Your task to perform on an android device: turn off picture-in-picture Image 0: 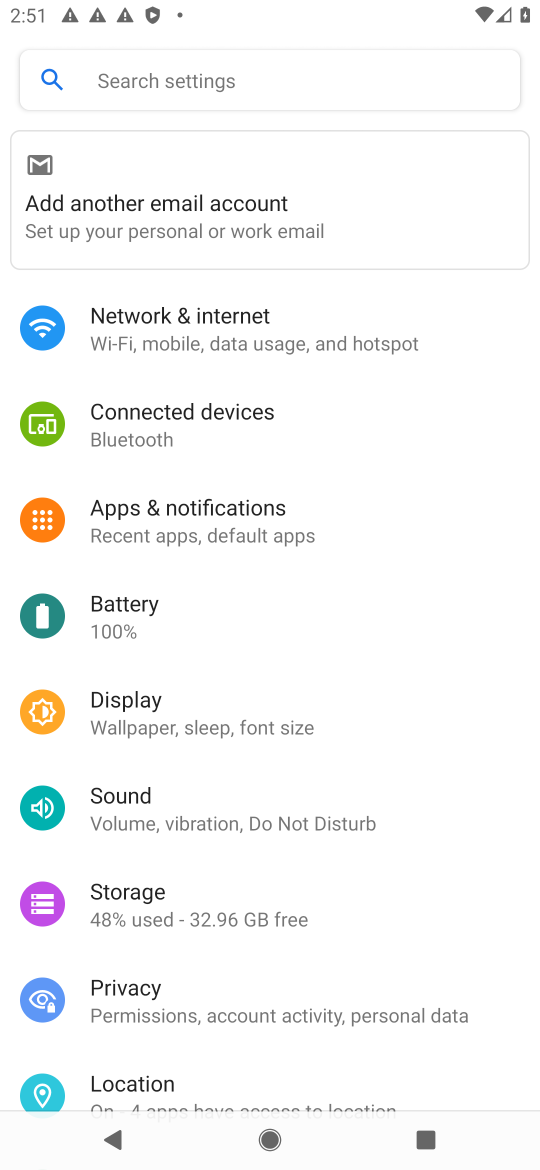
Step 0: press home button
Your task to perform on an android device: turn off picture-in-picture Image 1: 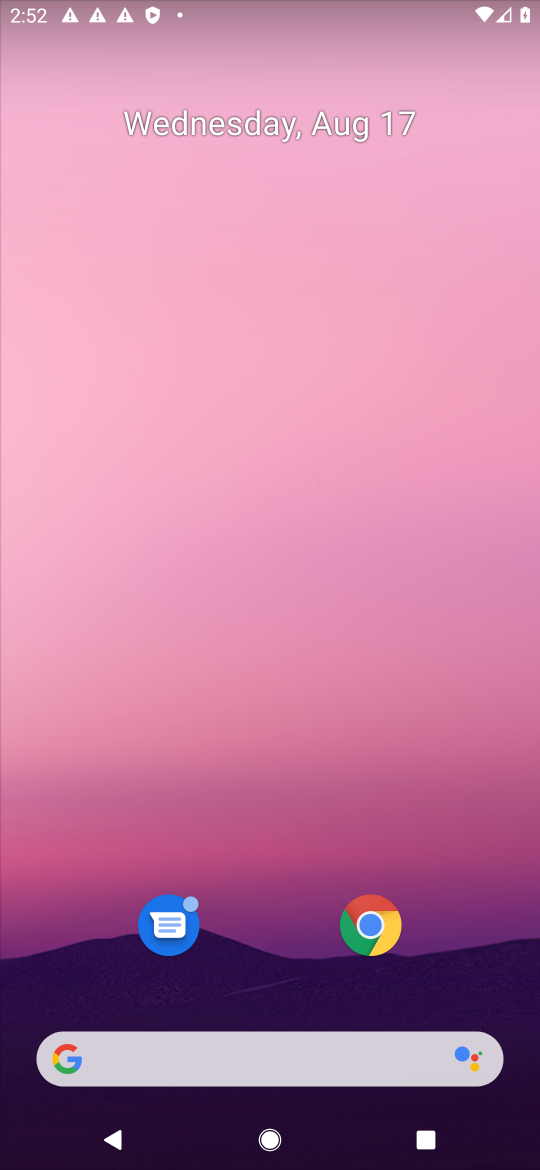
Step 1: click (378, 906)
Your task to perform on an android device: turn off picture-in-picture Image 2: 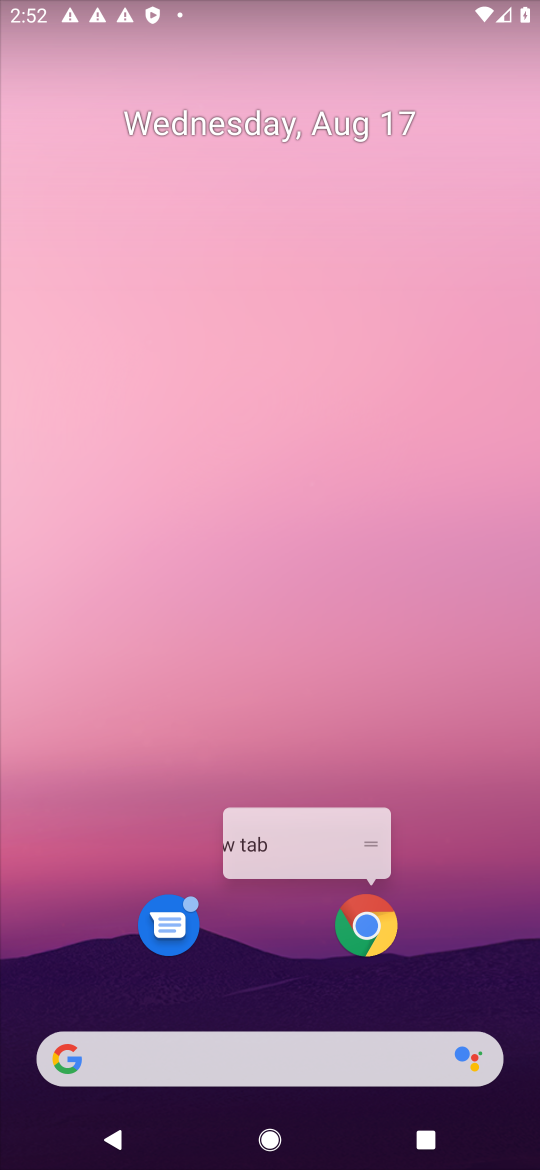
Step 2: click (300, 788)
Your task to perform on an android device: turn off picture-in-picture Image 3: 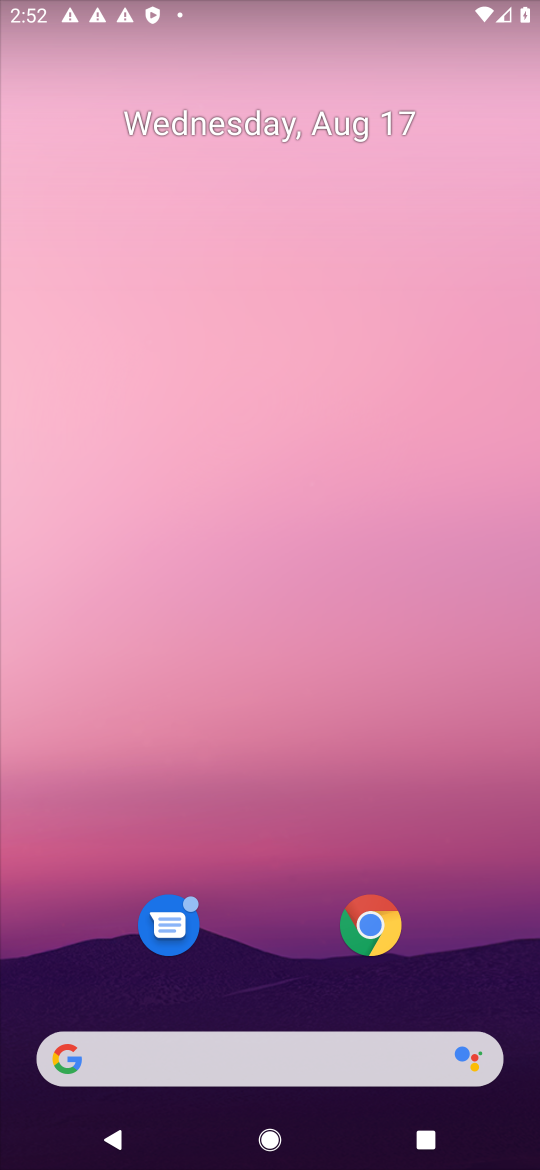
Step 3: click (361, 935)
Your task to perform on an android device: turn off picture-in-picture Image 4: 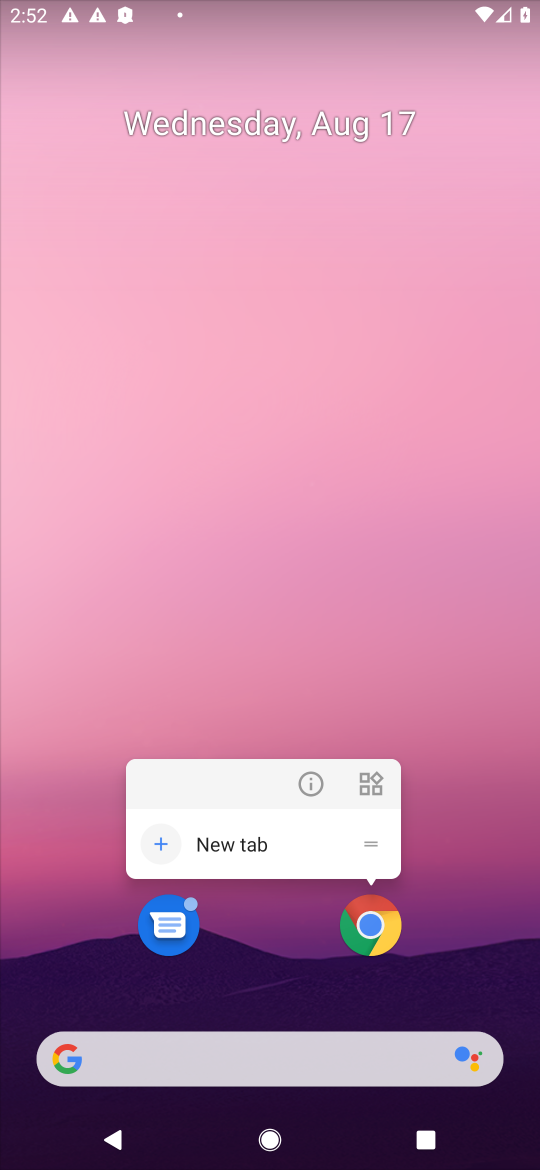
Step 4: click (320, 780)
Your task to perform on an android device: turn off picture-in-picture Image 5: 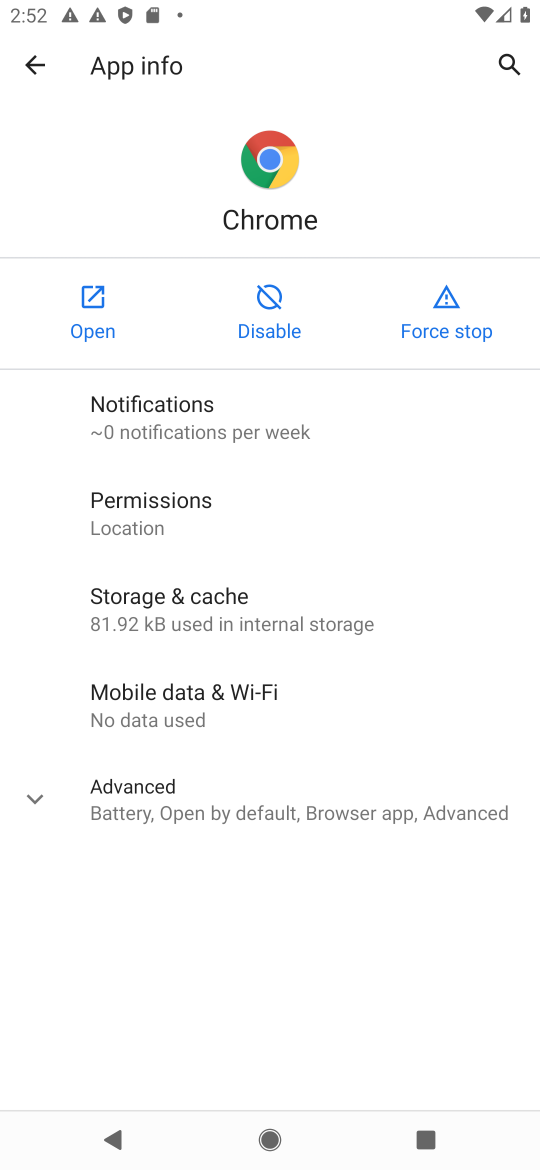
Step 5: click (250, 798)
Your task to perform on an android device: turn off picture-in-picture Image 6: 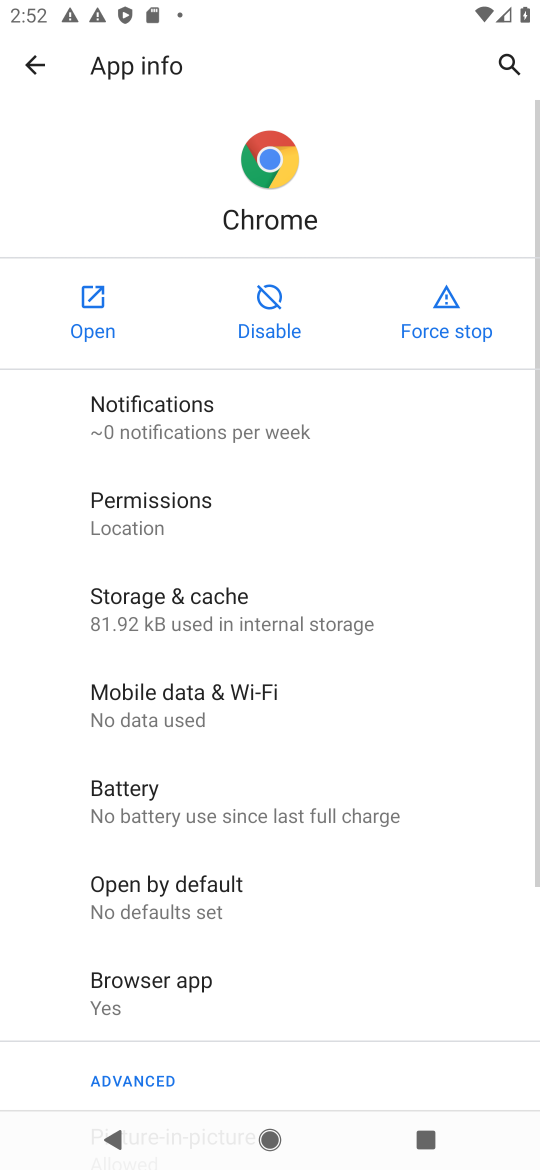
Step 6: drag from (243, 945) to (148, 115)
Your task to perform on an android device: turn off picture-in-picture Image 7: 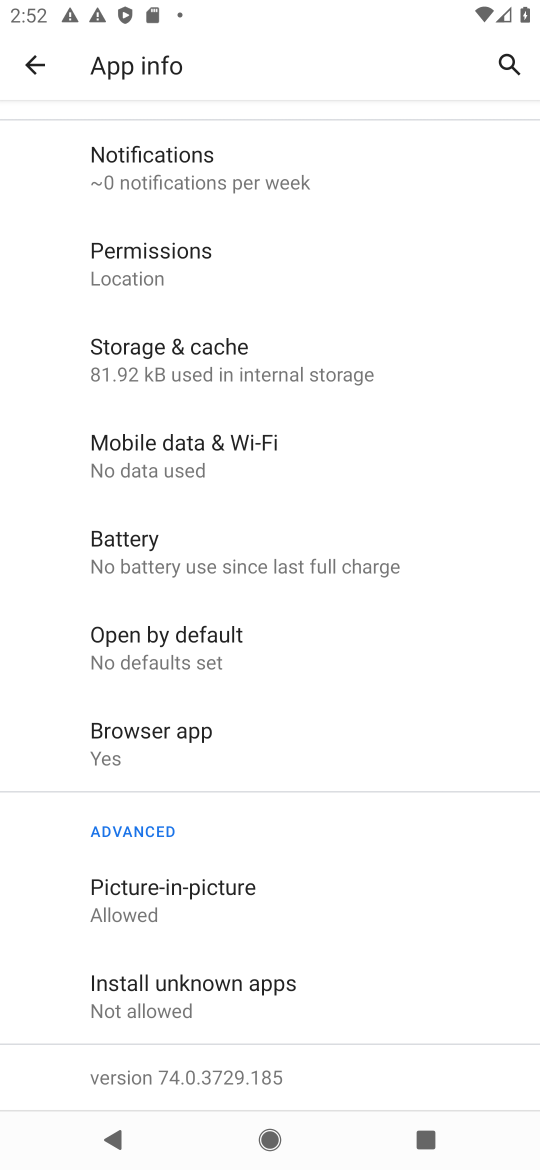
Step 7: click (245, 902)
Your task to perform on an android device: turn off picture-in-picture Image 8: 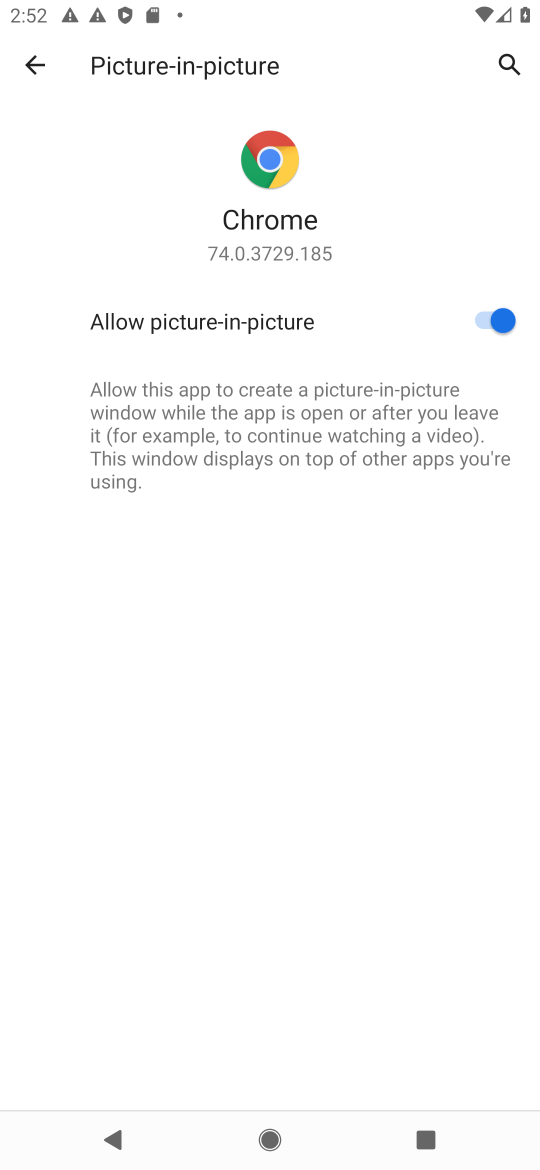
Step 8: click (492, 310)
Your task to perform on an android device: turn off picture-in-picture Image 9: 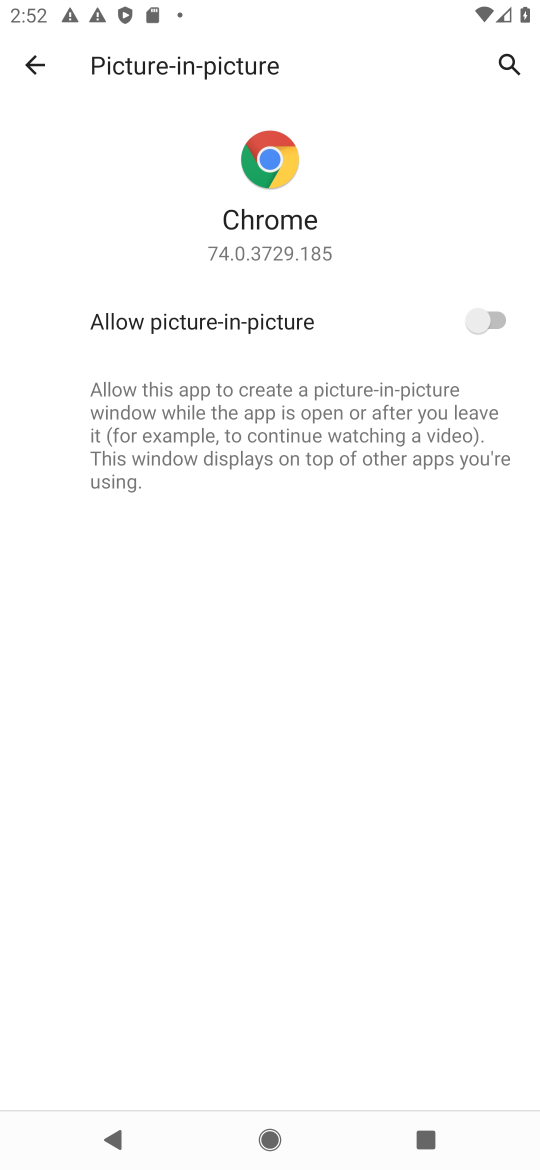
Step 9: task complete